Your task to perform on an android device: Open notification settings Image 0: 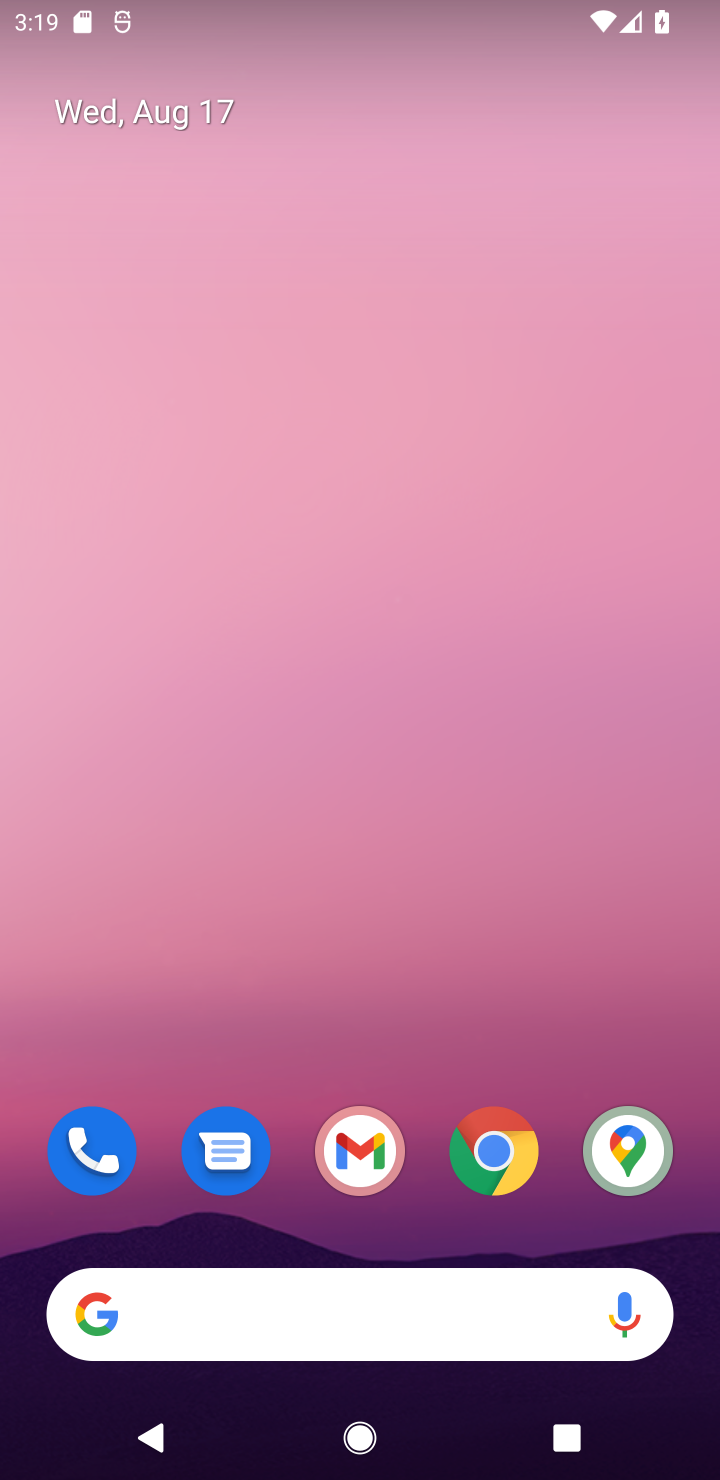
Step 0: drag from (404, 1248) to (425, 4)
Your task to perform on an android device: Open notification settings Image 1: 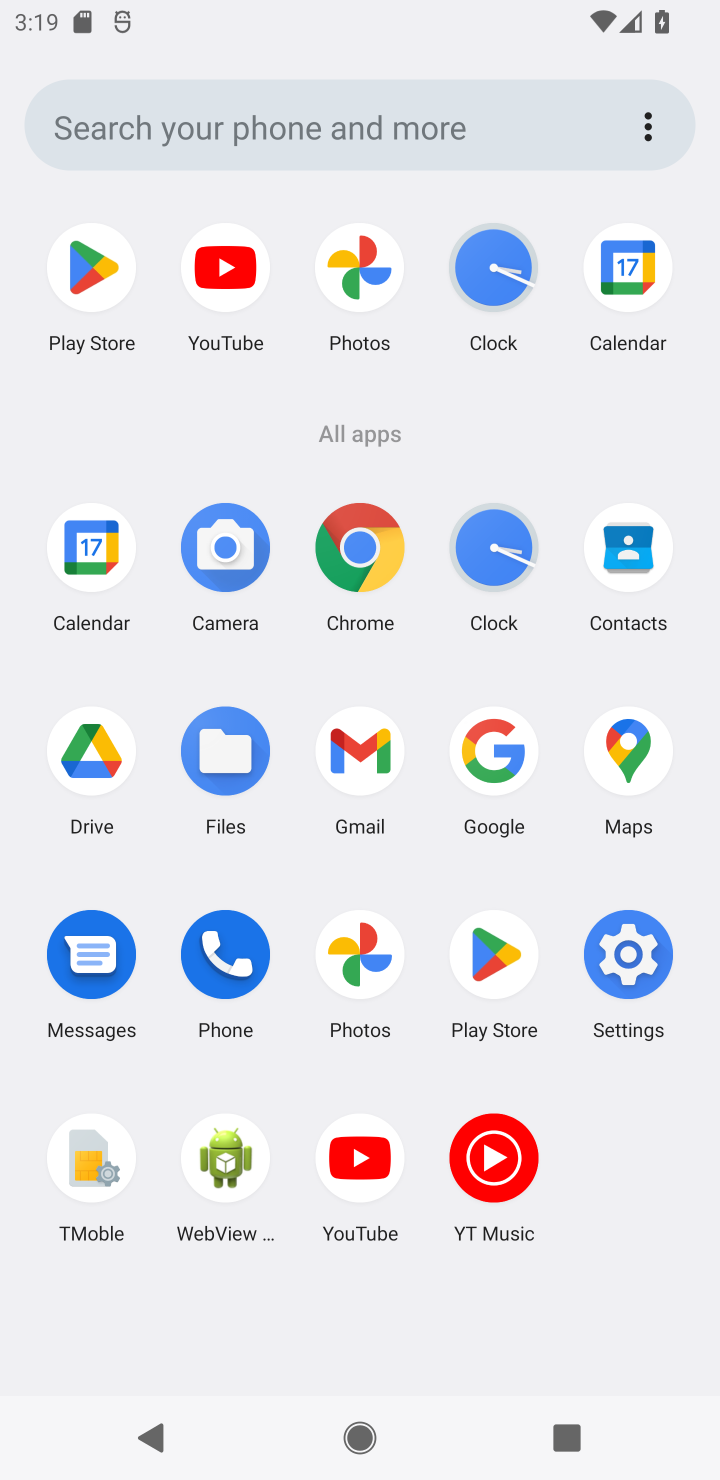
Step 1: click (611, 931)
Your task to perform on an android device: Open notification settings Image 2: 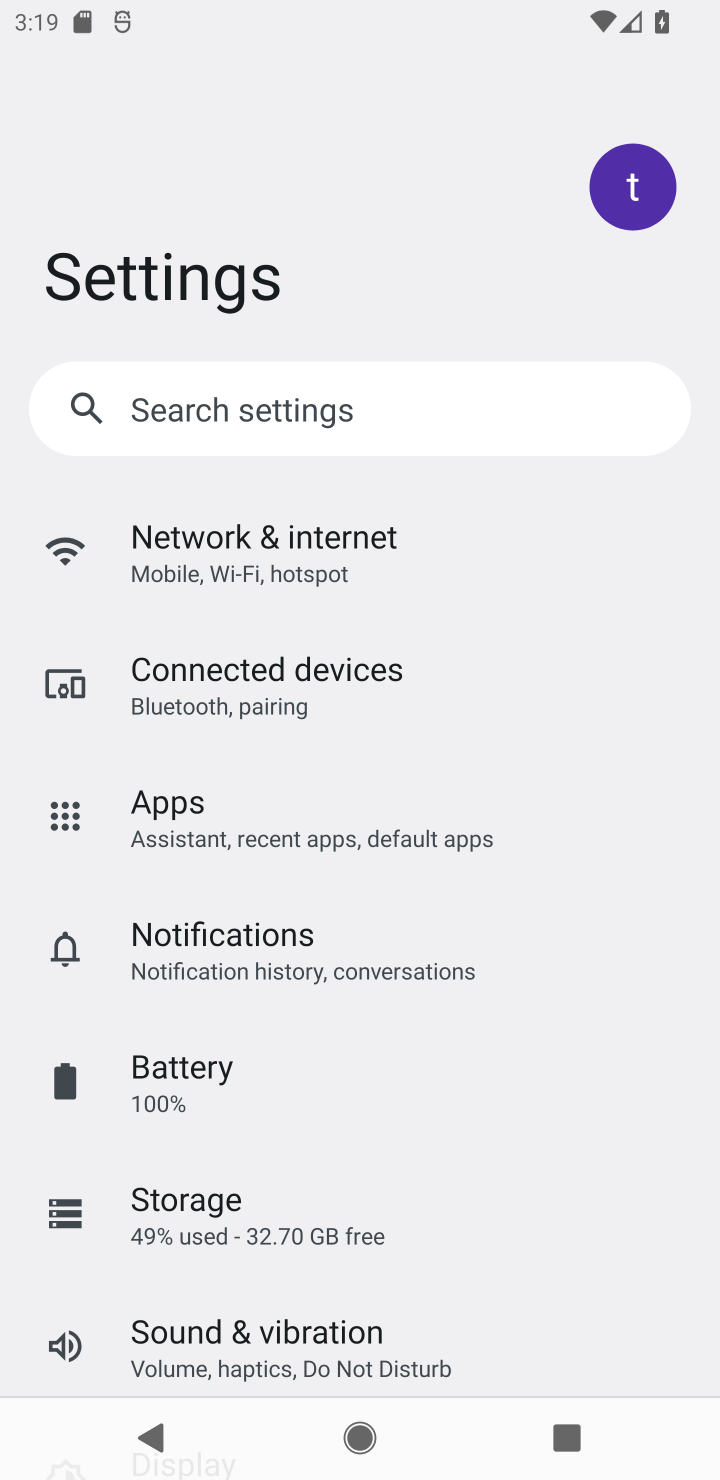
Step 2: click (242, 922)
Your task to perform on an android device: Open notification settings Image 3: 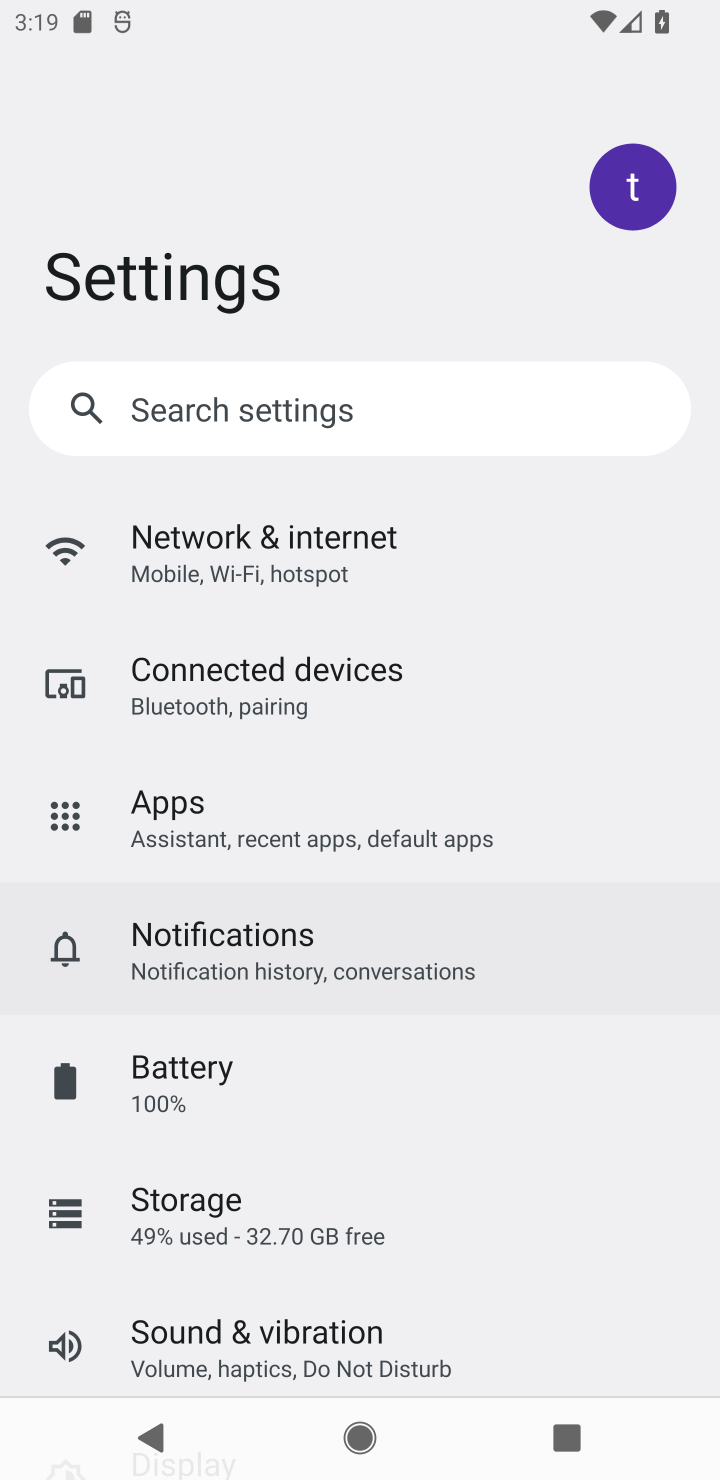
Step 3: task complete